Your task to perform on an android device: turn off picture-in-picture Image 0: 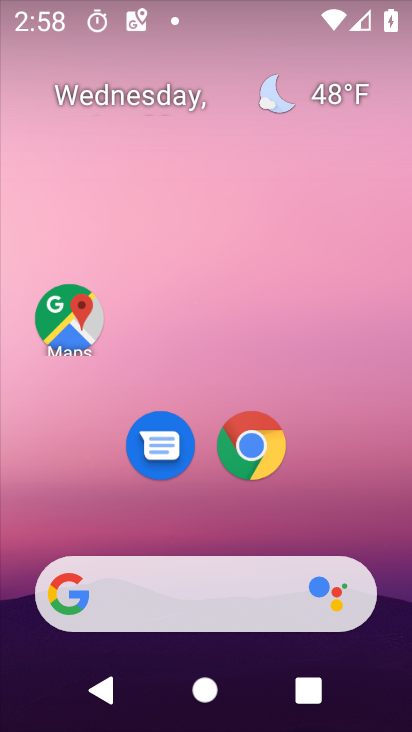
Step 0: click (257, 459)
Your task to perform on an android device: turn off picture-in-picture Image 1: 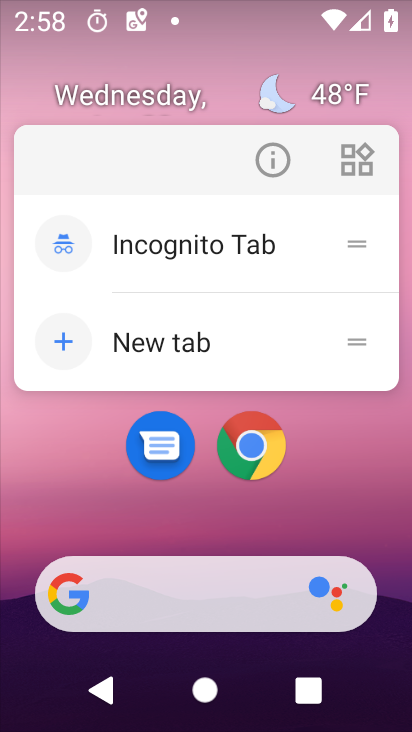
Step 1: click (279, 172)
Your task to perform on an android device: turn off picture-in-picture Image 2: 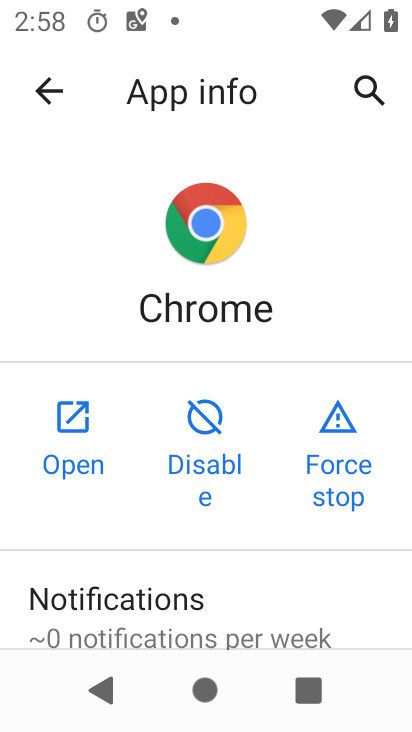
Step 2: drag from (241, 552) to (230, 219)
Your task to perform on an android device: turn off picture-in-picture Image 3: 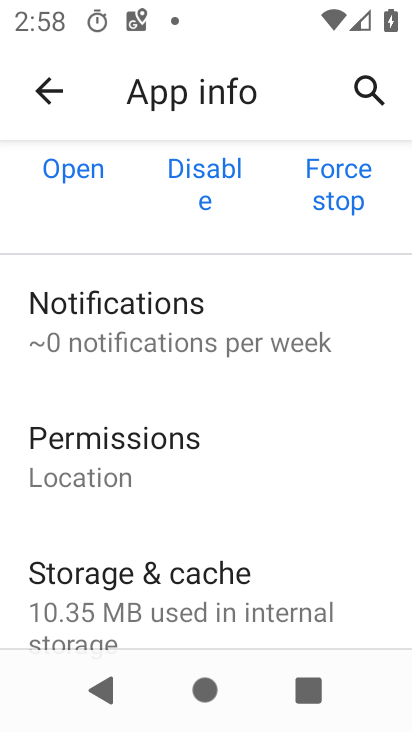
Step 3: drag from (220, 423) to (215, 138)
Your task to perform on an android device: turn off picture-in-picture Image 4: 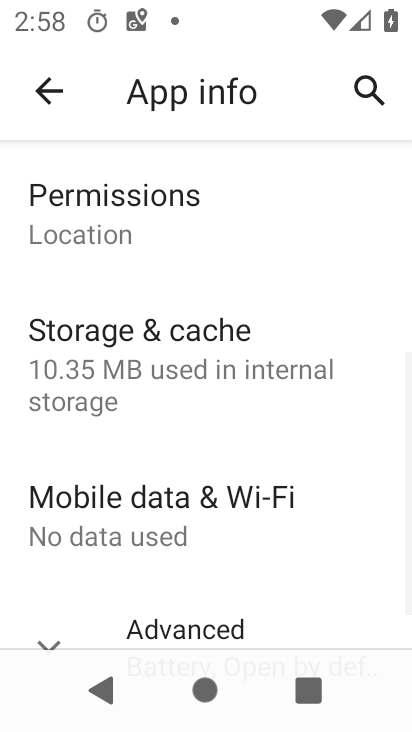
Step 4: drag from (223, 539) to (218, 150)
Your task to perform on an android device: turn off picture-in-picture Image 5: 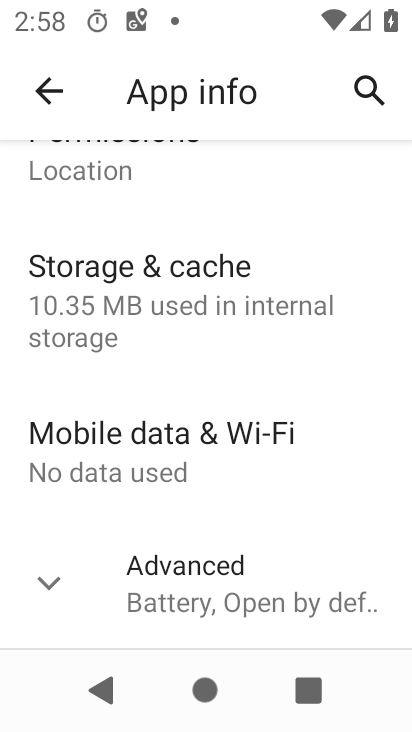
Step 5: click (49, 586)
Your task to perform on an android device: turn off picture-in-picture Image 6: 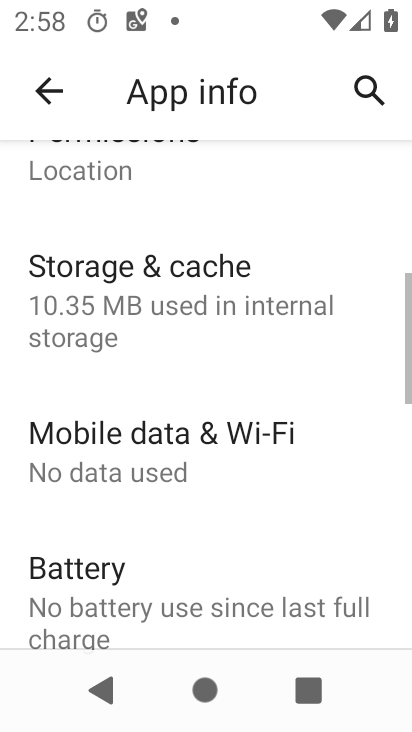
Step 6: drag from (219, 548) to (187, 120)
Your task to perform on an android device: turn off picture-in-picture Image 7: 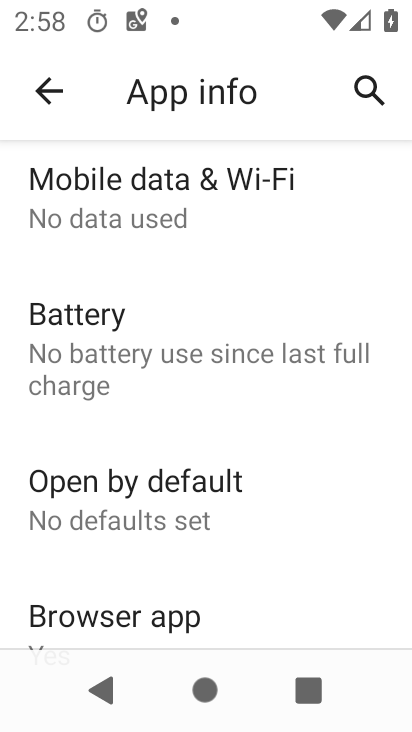
Step 7: drag from (192, 452) to (159, 101)
Your task to perform on an android device: turn off picture-in-picture Image 8: 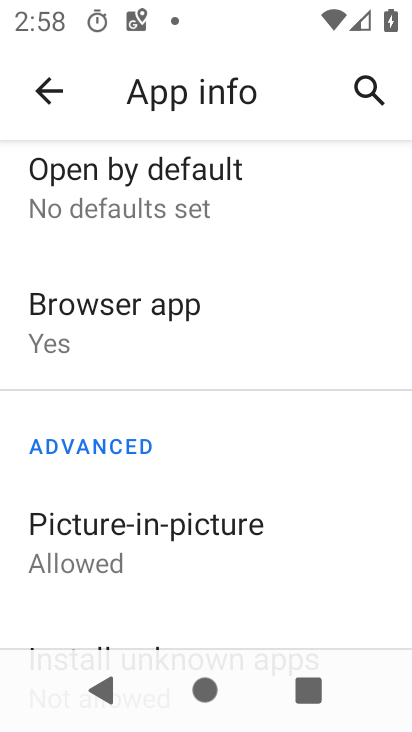
Step 8: click (116, 537)
Your task to perform on an android device: turn off picture-in-picture Image 9: 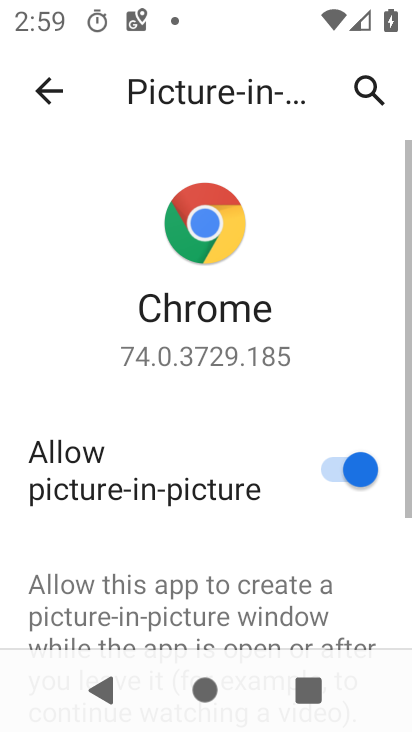
Step 9: click (348, 470)
Your task to perform on an android device: turn off picture-in-picture Image 10: 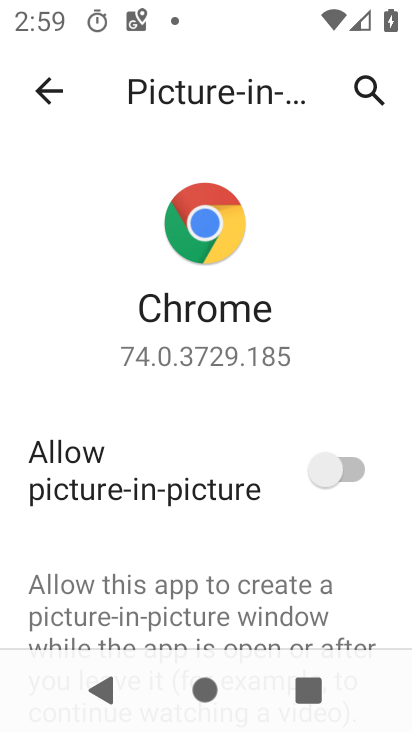
Step 10: task complete